Your task to perform on an android device: Go to sound settings Image 0: 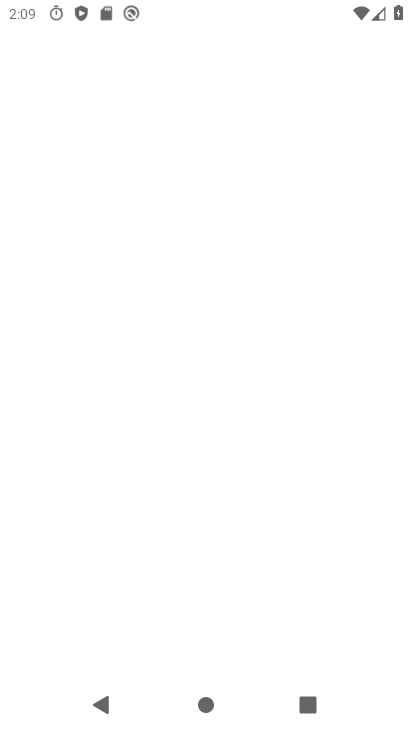
Step 0: drag from (231, 607) to (285, 175)
Your task to perform on an android device: Go to sound settings Image 1: 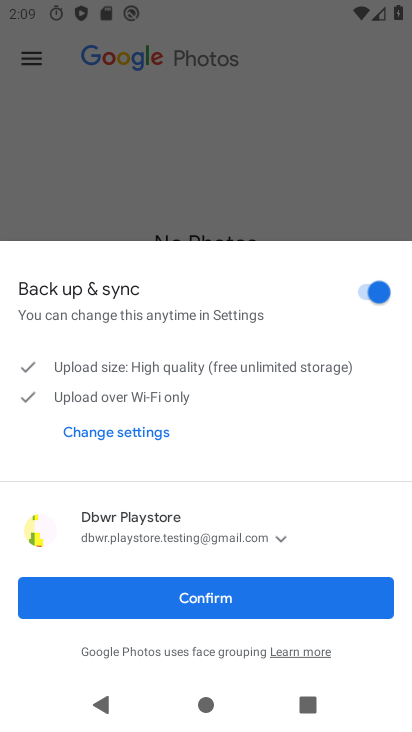
Step 1: press home button
Your task to perform on an android device: Go to sound settings Image 2: 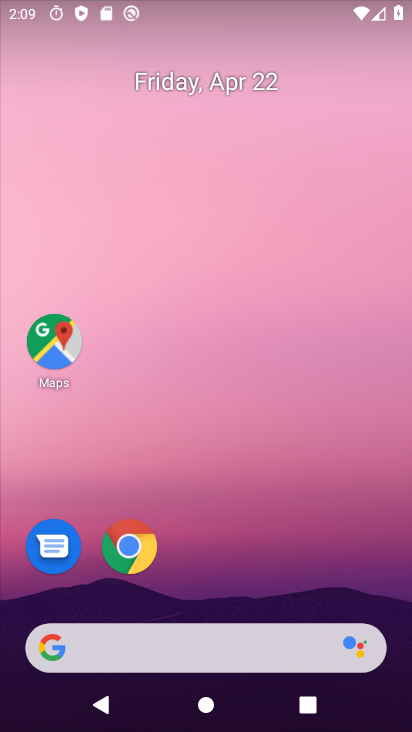
Step 2: drag from (208, 577) to (256, 92)
Your task to perform on an android device: Go to sound settings Image 3: 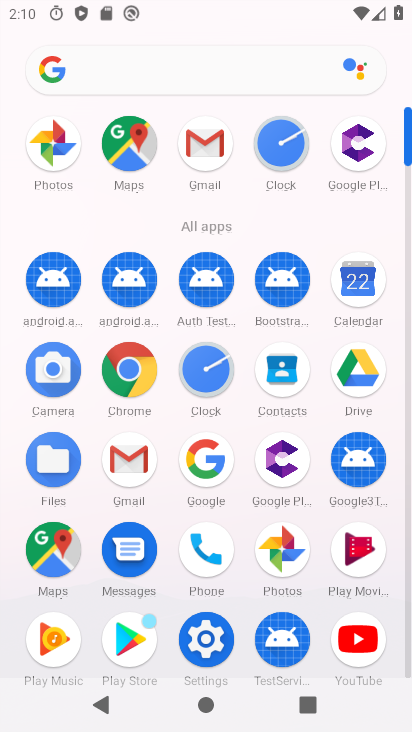
Step 3: click (220, 642)
Your task to perform on an android device: Go to sound settings Image 4: 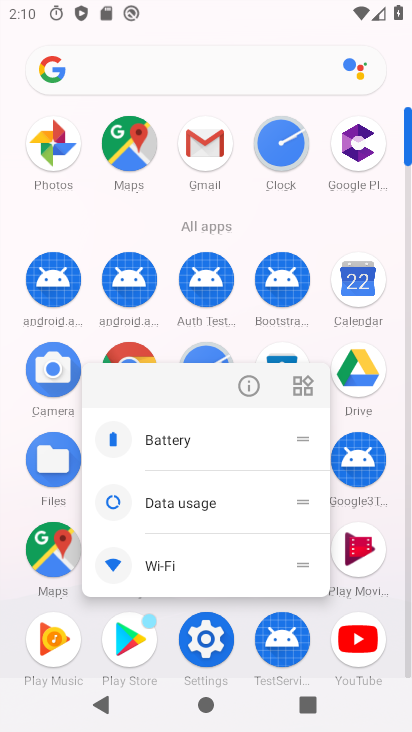
Step 4: click (247, 380)
Your task to perform on an android device: Go to sound settings Image 5: 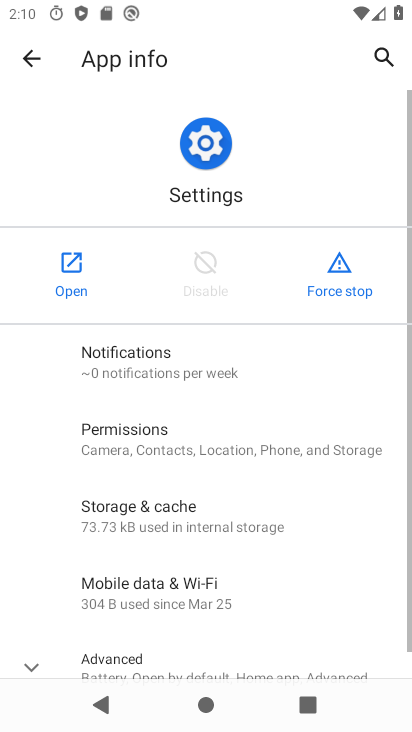
Step 5: click (38, 277)
Your task to perform on an android device: Go to sound settings Image 6: 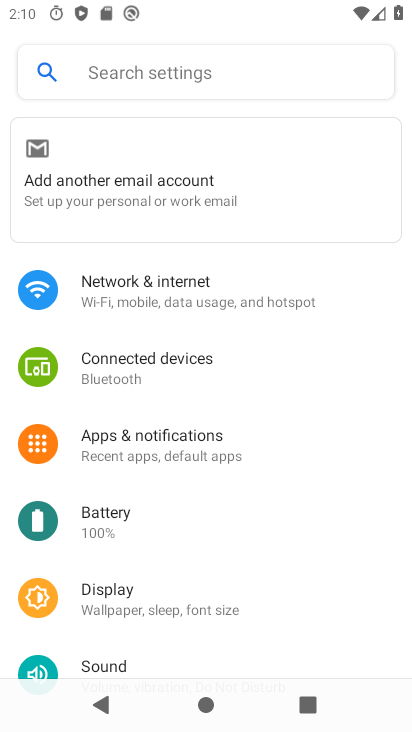
Step 6: click (146, 657)
Your task to perform on an android device: Go to sound settings Image 7: 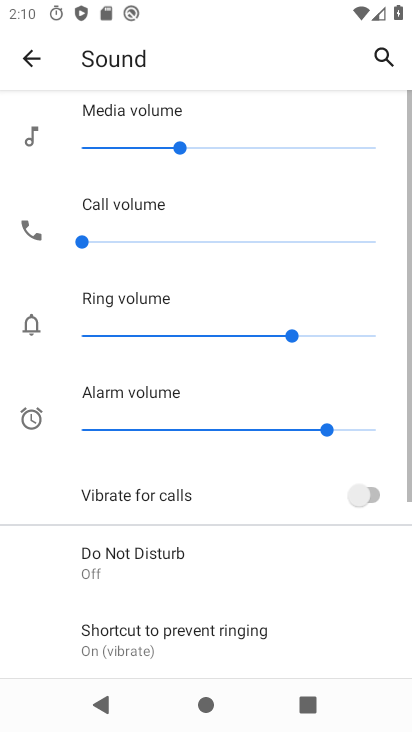
Step 7: task complete